Your task to perform on an android device: install app "Move to iOS" Image 0: 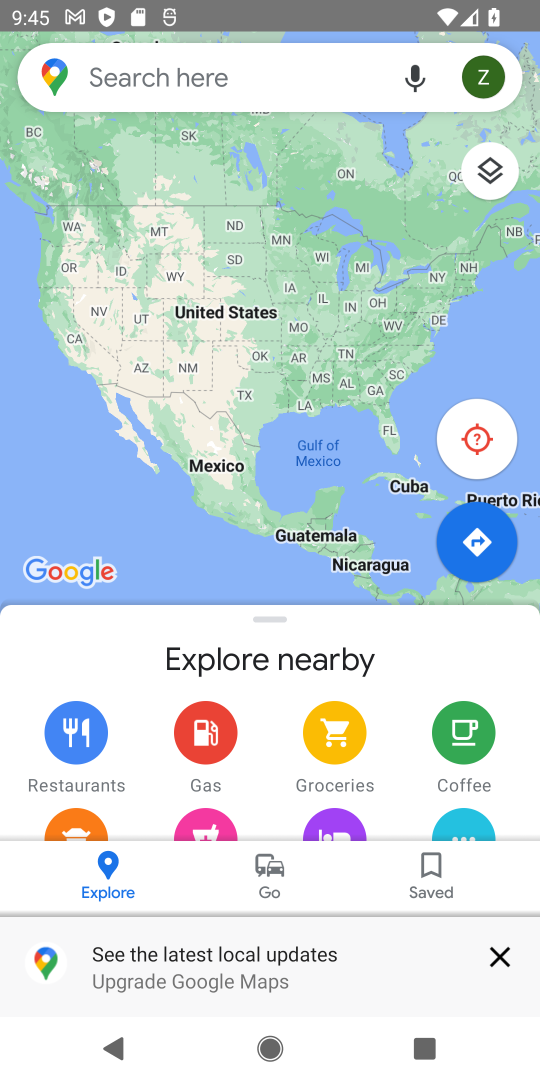
Step 0: press back button
Your task to perform on an android device: install app "Move to iOS" Image 1: 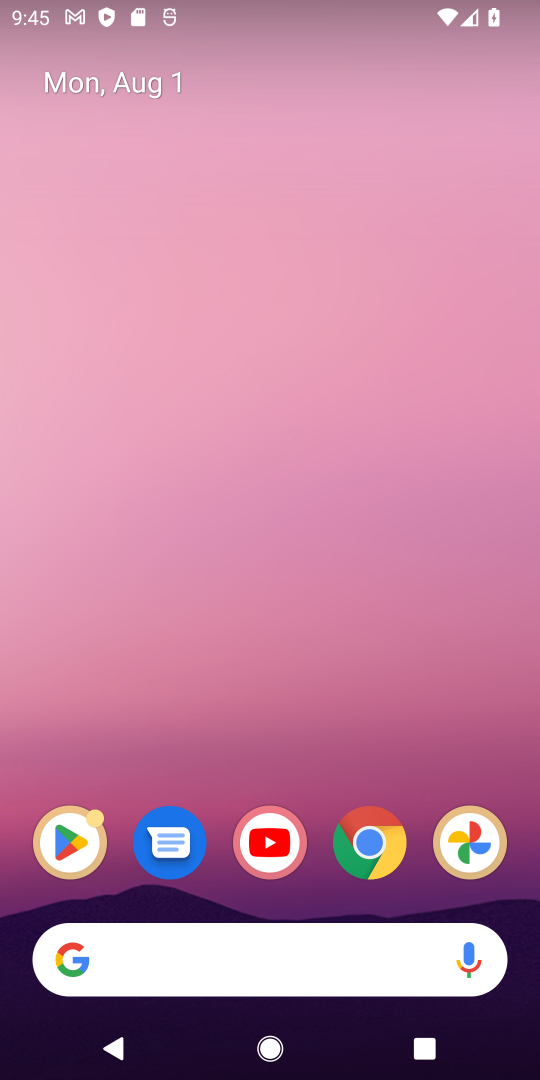
Step 1: click (74, 847)
Your task to perform on an android device: install app "Move to iOS" Image 2: 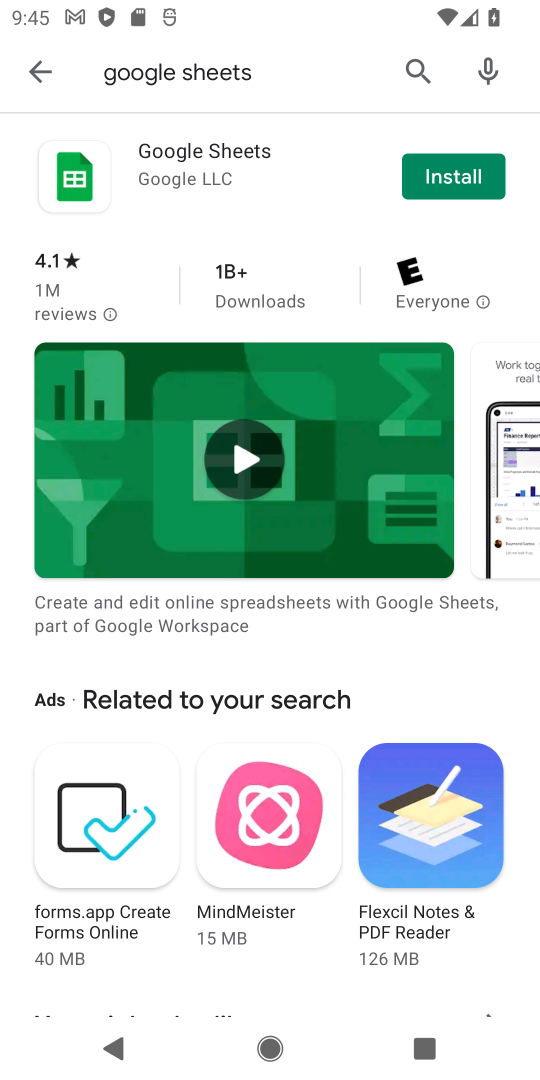
Step 2: click (391, 60)
Your task to perform on an android device: install app "Move to iOS" Image 3: 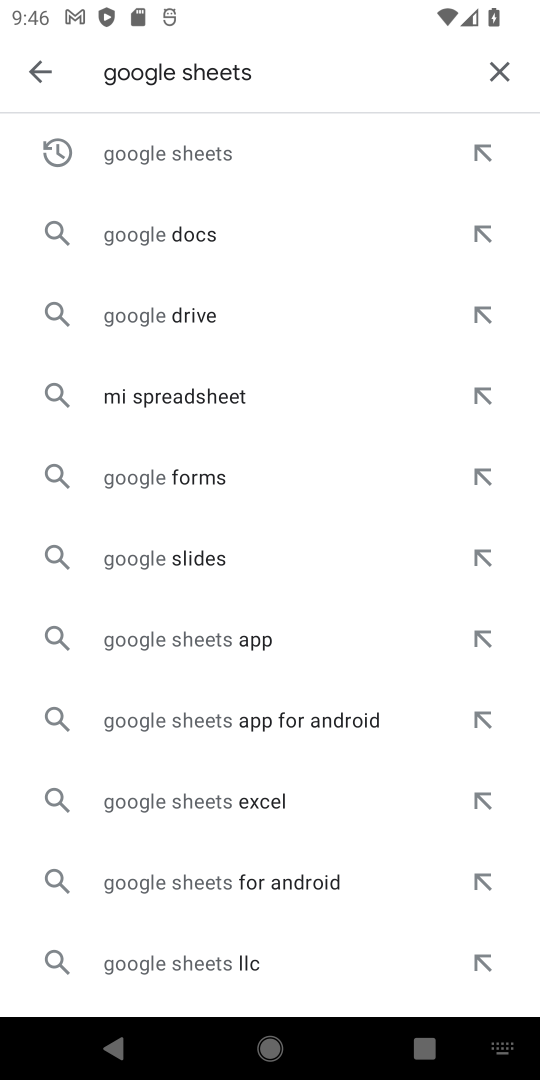
Step 3: click (493, 69)
Your task to perform on an android device: install app "Move to iOS" Image 4: 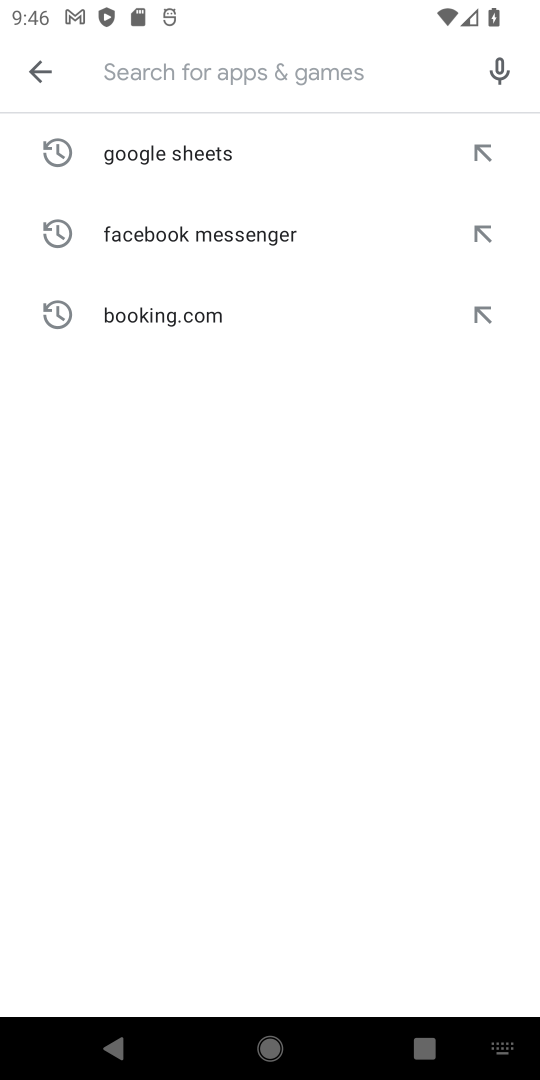
Step 4: click (277, 63)
Your task to perform on an android device: install app "Move to iOS" Image 5: 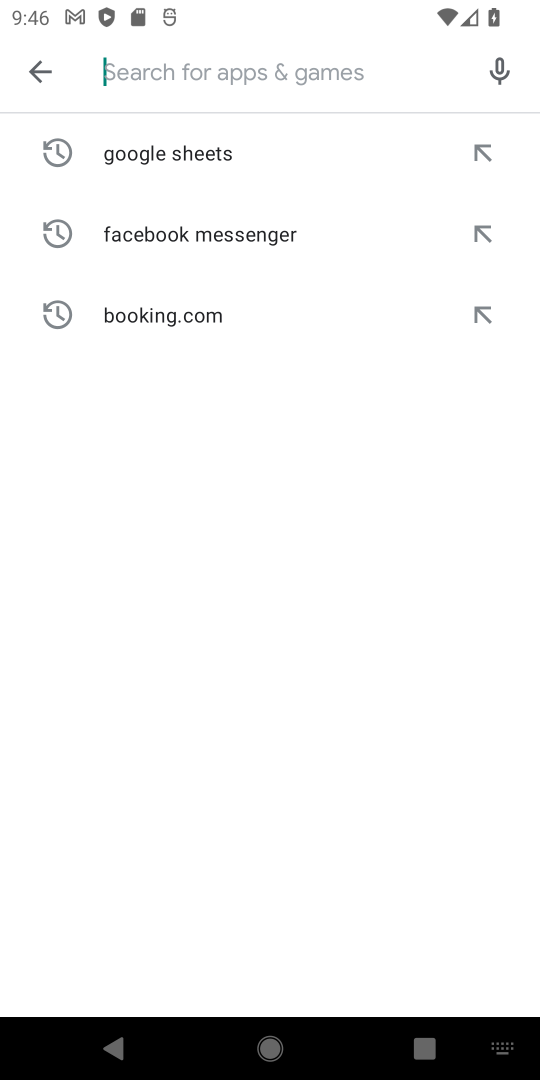
Step 5: type "Move to iOS"
Your task to perform on an android device: install app "Move to iOS" Image 6: 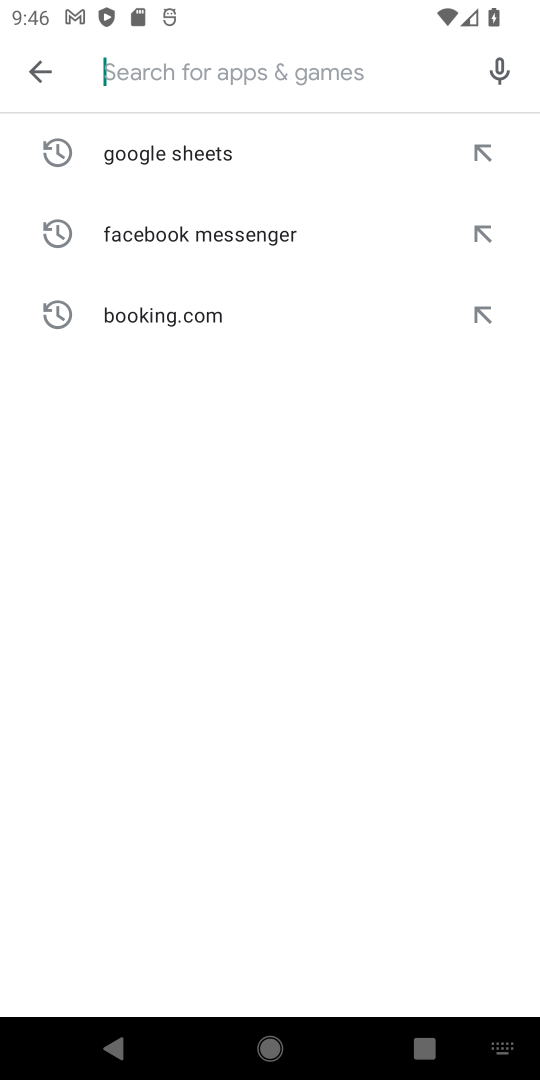
Step 6: click (301, 399)
Your task to perform on an android device: install app "Move to iOS" Image 7: 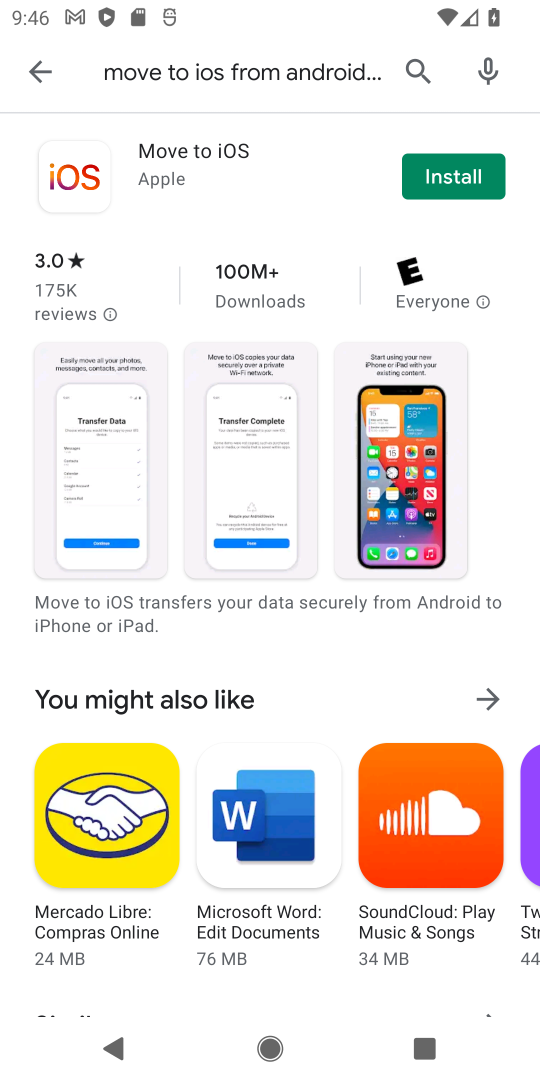
Step 7: click (446, 179)
Your task to perform on an android device: install app "Move to iOS" Image 8: 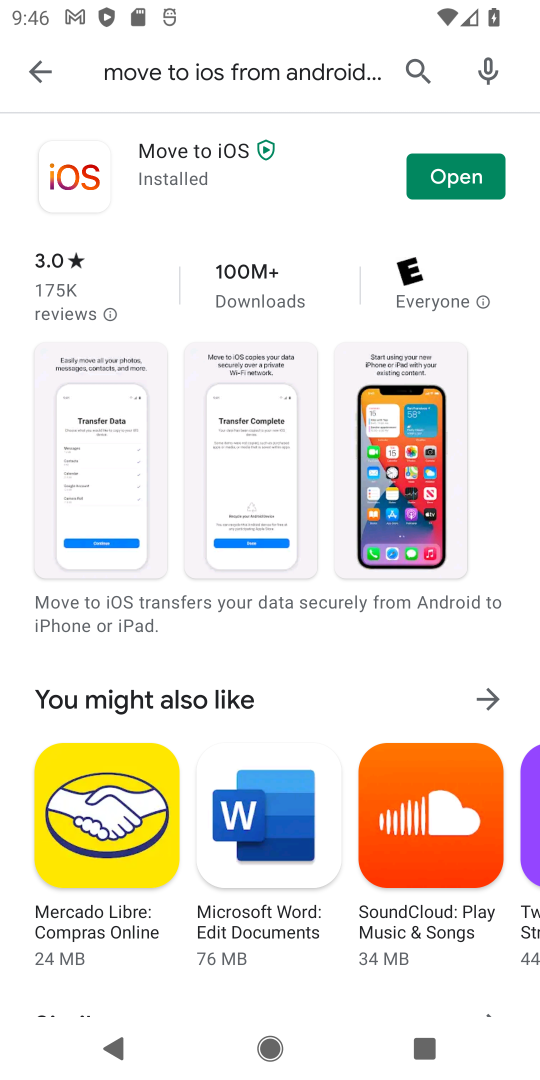
Step 8: task complete